Your task to perform on an android device: Open the web browser Image 0: 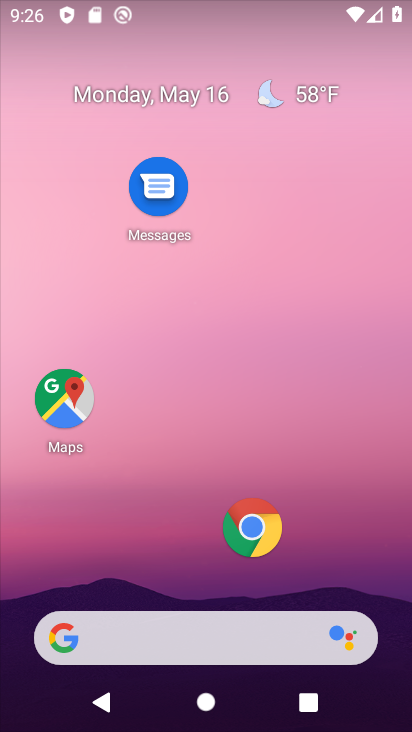
Step 0: drag from (168, 538) to (217, 53)
Your task to perform on an android device: Open the web browser Image 1: 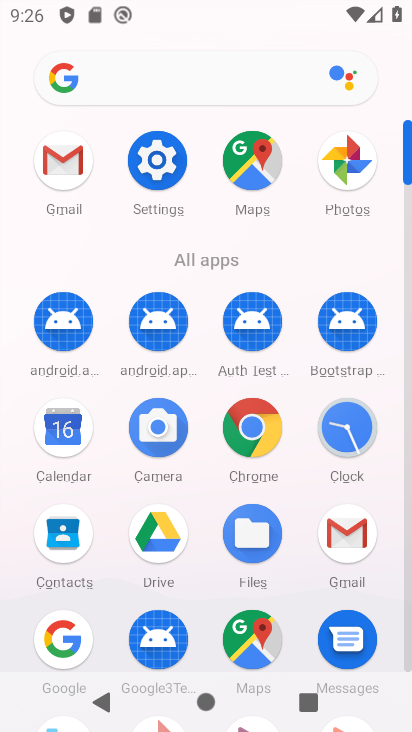
Step 1: click (68, 638)
Your task to perform on an android device: Open the web browser Image 2: 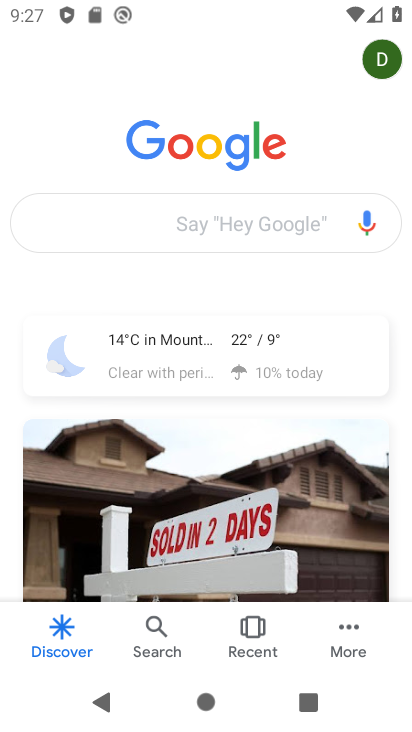
Step 2: task complete